Your task to perform on an android device: change keyboard looks Image 0: 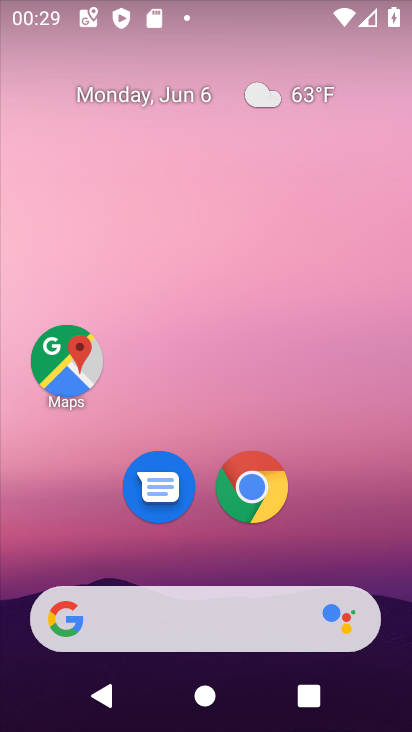
Step 0: drag from (395, 599) to (336, 90)
Your task to perform on an android device: change keyboard looks Image 1: 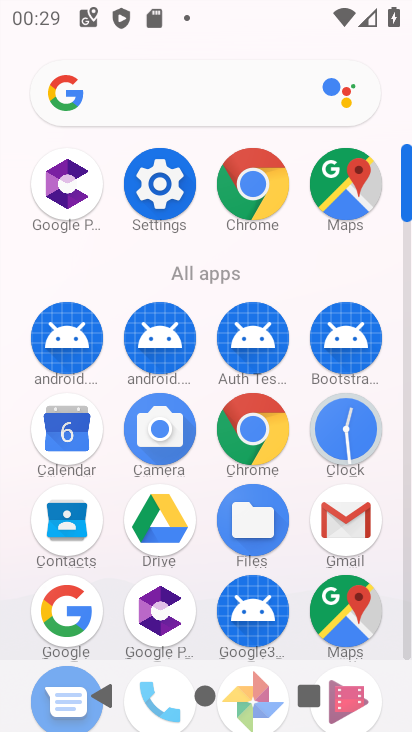
Step 1: click (404, 641)
Your task to perform on an android device: change keyboard looks Image 2: 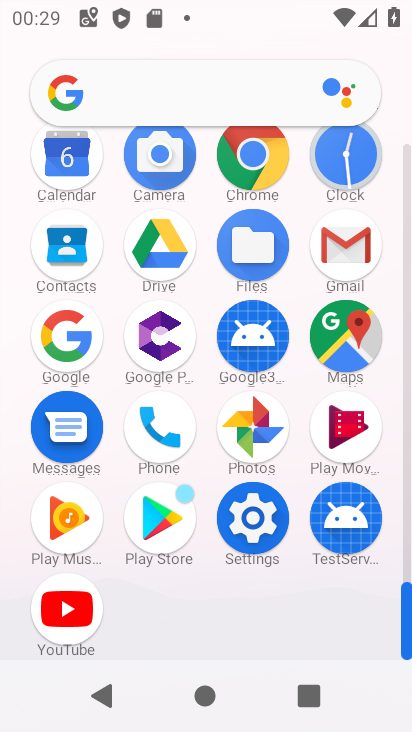
Step 2: click (256, 517)
Your task to perform on an android device: change keyboard looks Image 3: 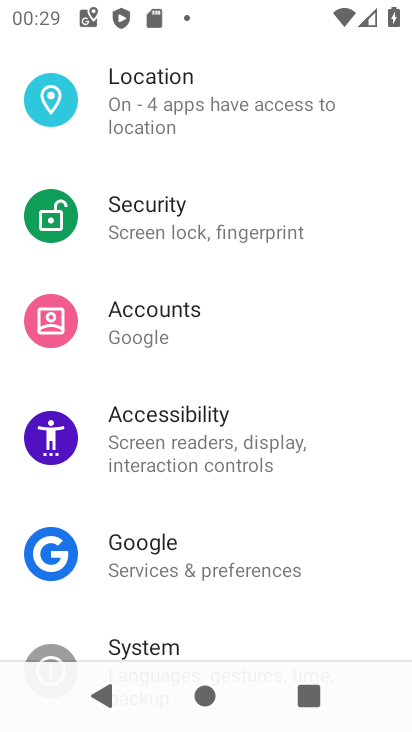
Step 3: drag from (342, 593) to (321, 293)
Your task to perform on an android device: change keyboard looks Image 4: 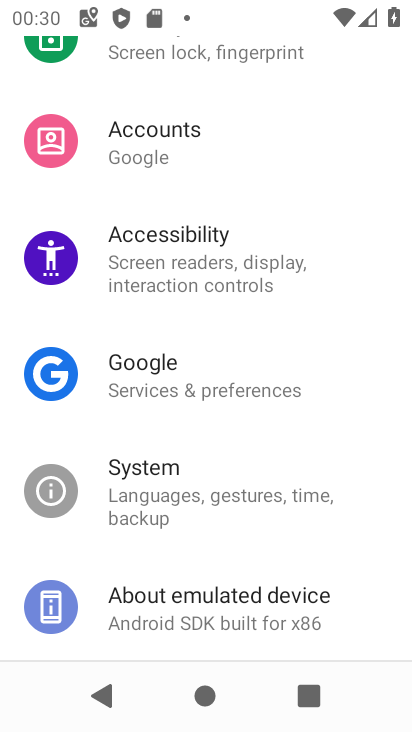
Step 4: click (143, 486)
Your task to perform on an android device: change keyboard looks Image 5: 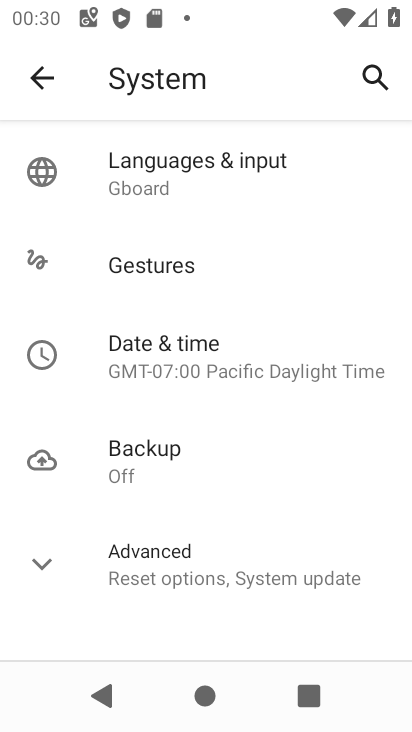
Step 5: click (168, 171)
Your task to perform on an android device: change keyboard looks Image 6: 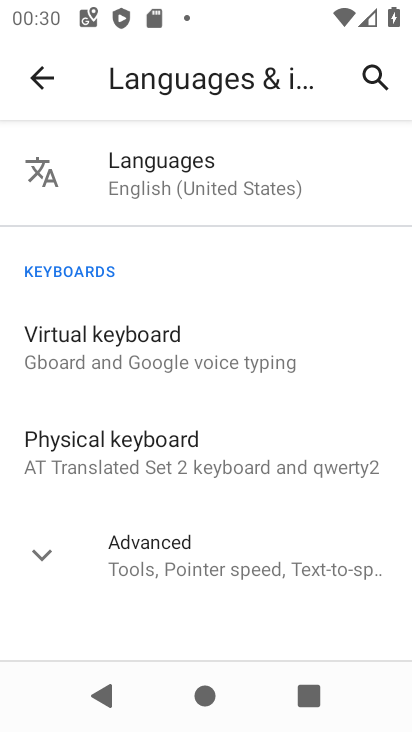
Step 6: click (148, 446)
Your task to perform on an android device: change keyboard looks Image 7: 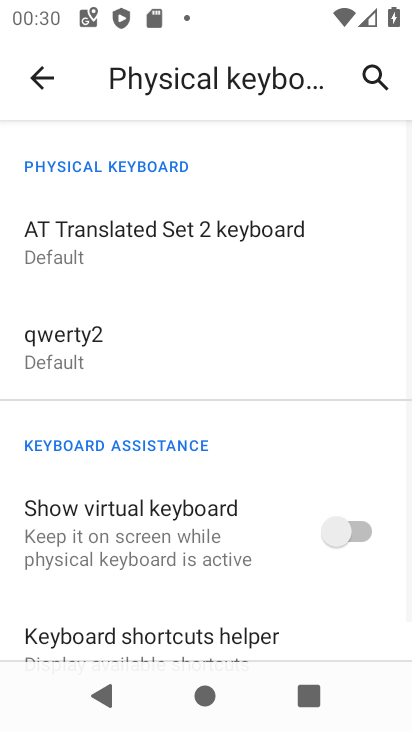
Step 7: click (55, 348)
Your task to perform on an android device: change keyboard looks Image 8: 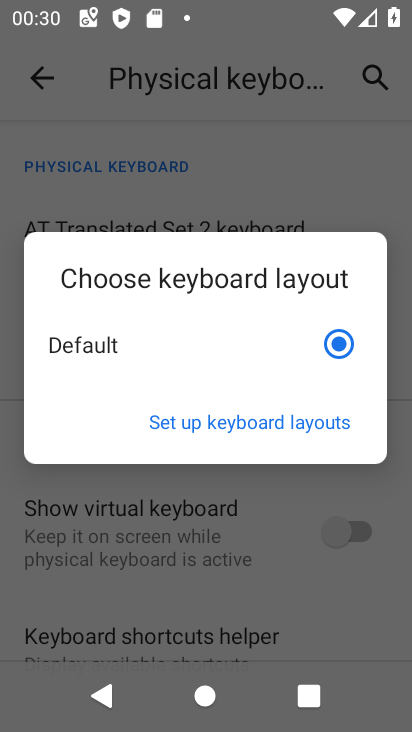
Step 8: click (250, 430)
Your task to perform on an android device: change keyboard looks Image 9: 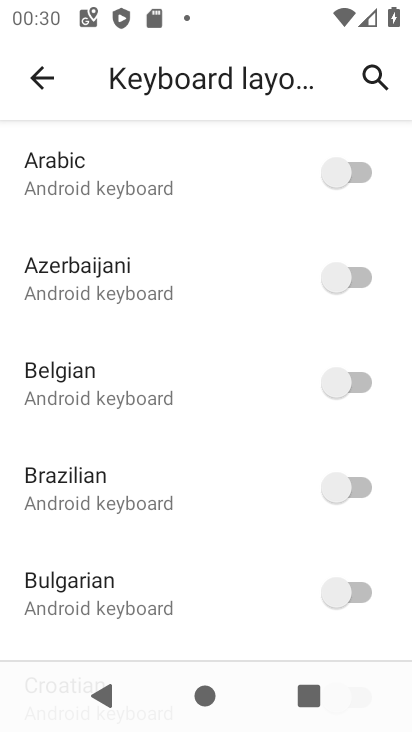
Step 9: drag from (235, 579) to (248, 121)
Your task to perform on an android device: change keyboard looks Image 10: 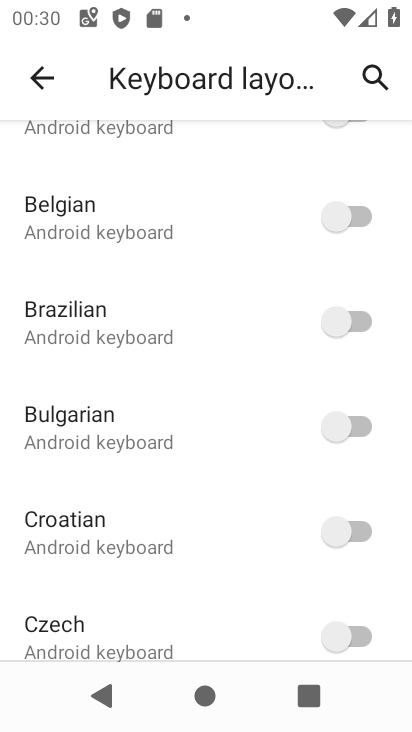
Step 10: click (358, 632)
Your task to perform on an android device: change keyboard looks Image 11: 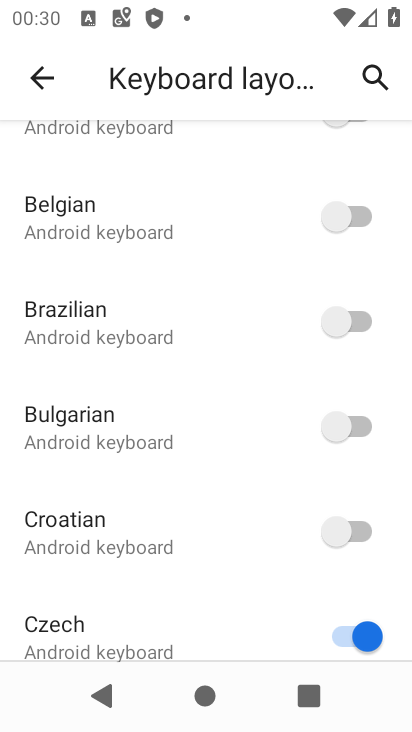
Step 11: task complete